Your task to perform on an android device: toggle priority inbox in the gmail app Image 0: 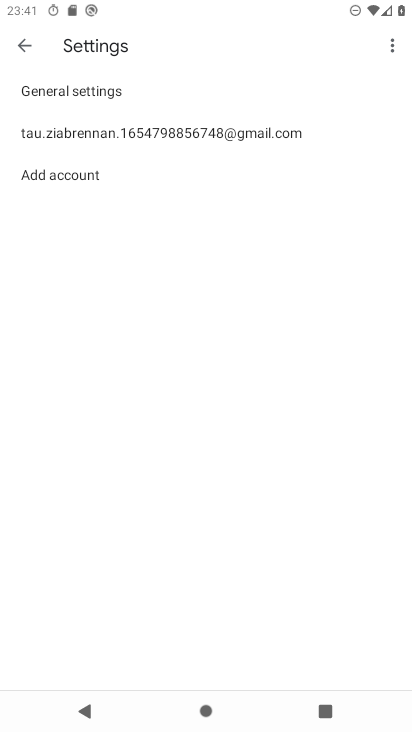
Step 0: press home button
Your task to perform on an android device: toggle priority inbox in the gmail app Image 1: 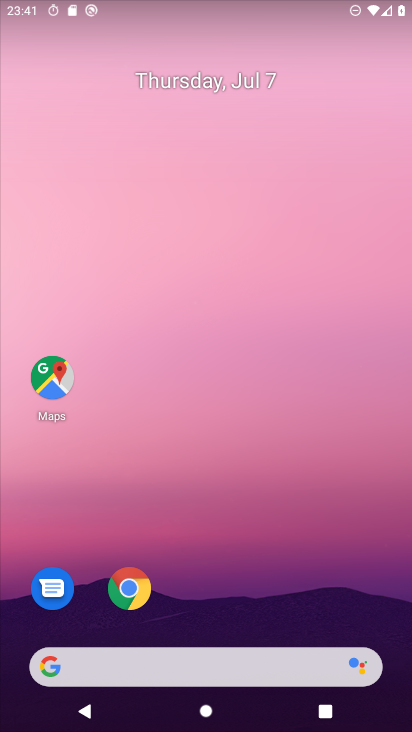
Step 1: drag from (287, 524) to (275, 37)
Your task to perform on an android device: toggle priority inbox in the gmail app Image 2: 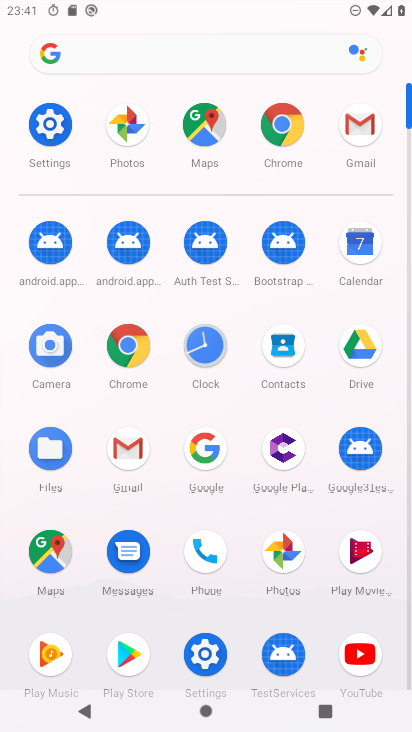
Step 2: click (358, 126)
Your task to perform on an android device: toggle priority inbox in the gmail app Image 3: 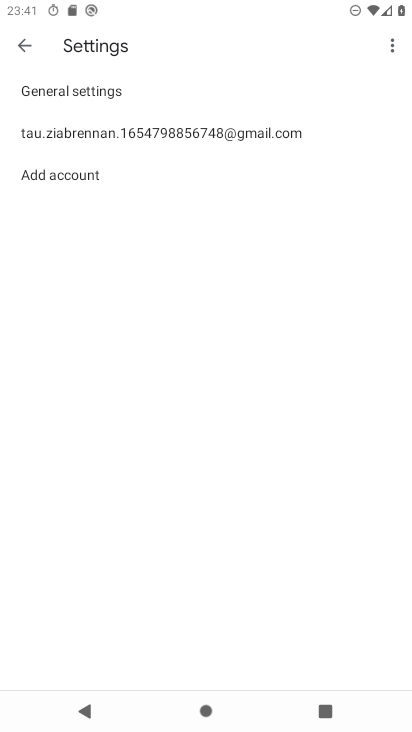
Step 3: click (53, 135)
Your task to perform on an android device: toggle priority inbox in the gmail app Image 4: 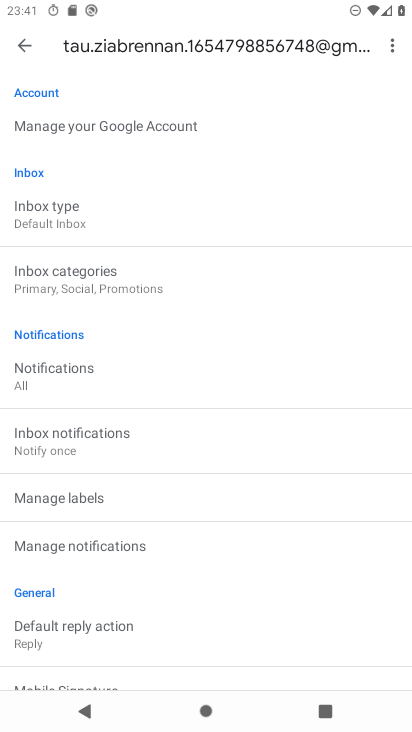
Step 4: click (84, 221)
Your task to perform on an android device: toggle priority inbox in the gmail app Image 5: 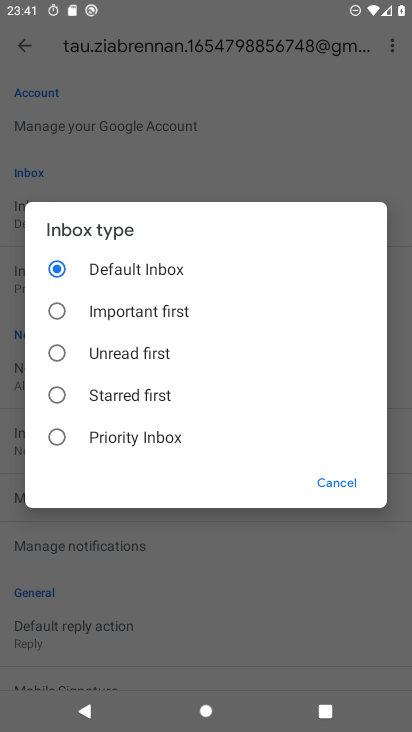
Step 5: click (167, 433)
Your task to perform on an android device: toggle priority inbox in the gmail app Image 6: 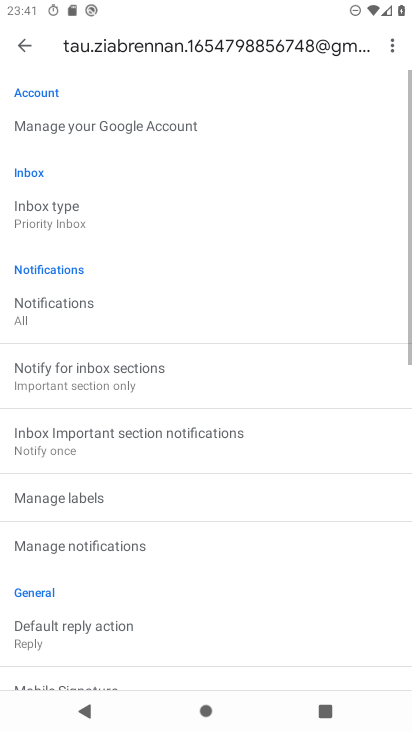
Step 6: task complete